Your task to perform on an android device: choose inbox layout in the gmail app Image 0: 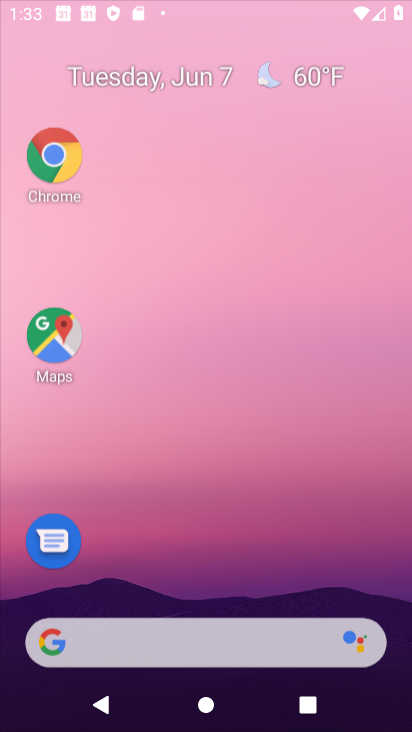
Step 0: drag from (357, 3) to (371, 131)
Your task to perform on an android device: choose inbox layout in the gmail app Image 1: 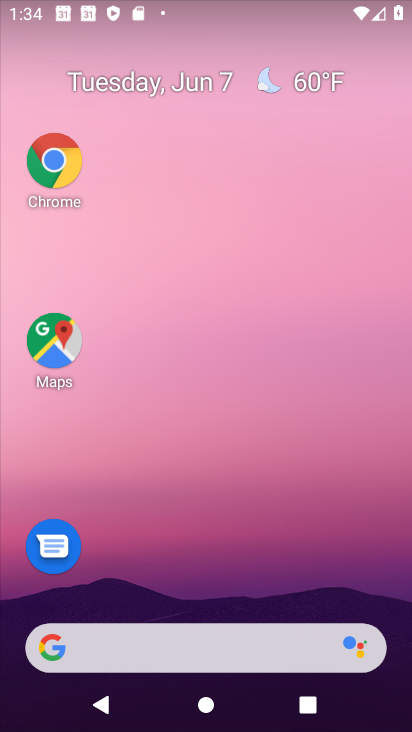
Step 1: drag from (169, 571) to (247, 153)
Your task to perform on an android device: choose inbox layout in the gmail app Image 2: 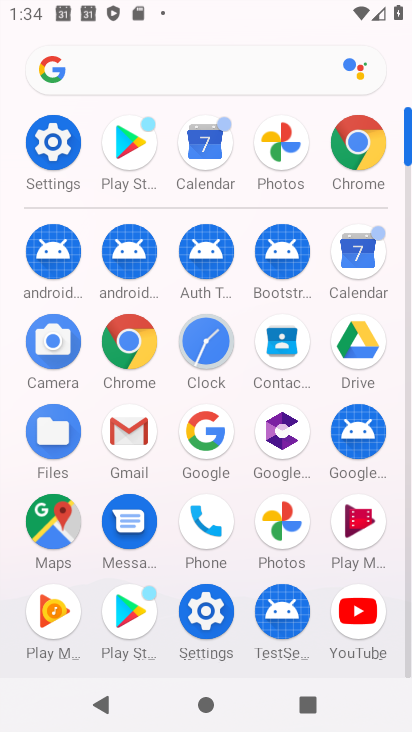
Step 2: click (111, 420)
Your task to perform on an android device: choose inbox layout in the gmail app Image 3: 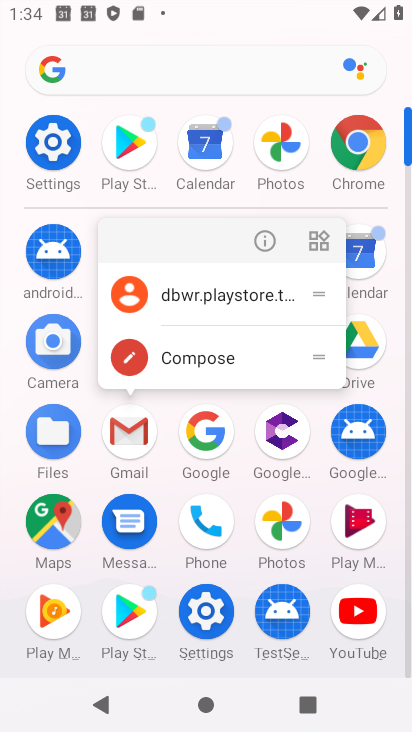
Step 3: click (254, 232)
Your task to perform on an android device: choose inbox layout in the gmail app Image 4: 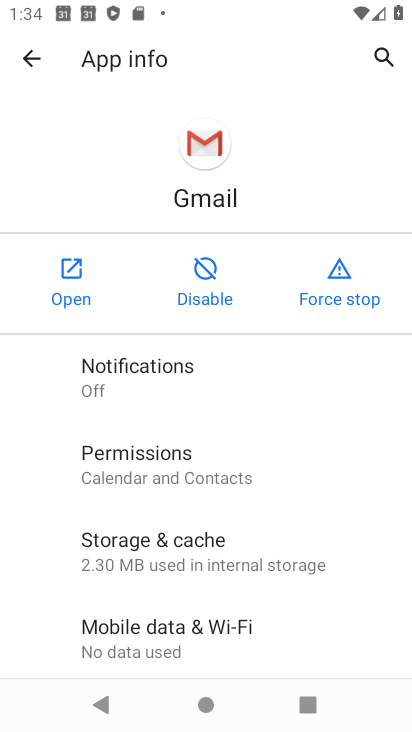
Step 4: click (57, 271)
Your task to perform on an android device: choose inbox layout in the gmail app Image 5: 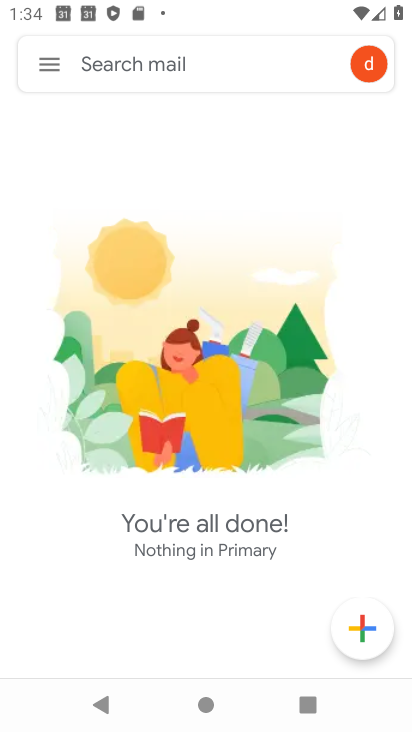
Step 5: click (39, 73)
Your task to perform on an android device: choose inbox layout in the gmail app Image 6: 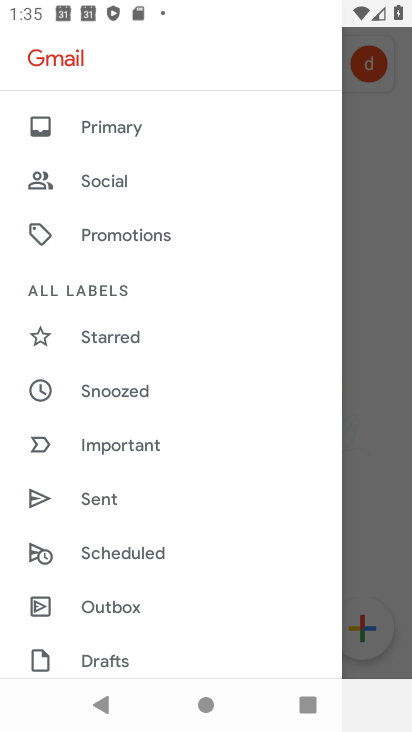
Step 6: click (120, 111)
Your task to perform on an android device: choose inbox layout in the gmail app Image 7: 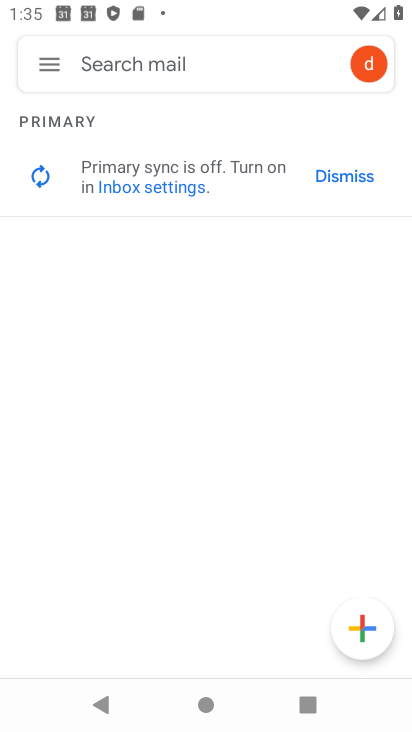
Step 7: task complete